Your task to perform on an android device: Open wifi settings Image 0: 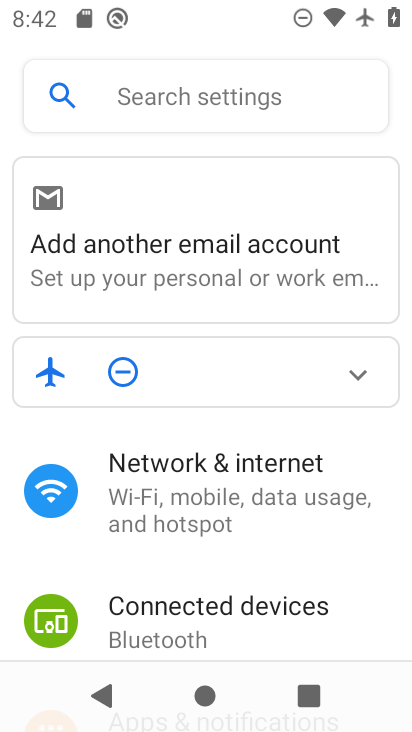
Step 0: press home button
Your task to perform on an android device: Open wifi settings Image 1: 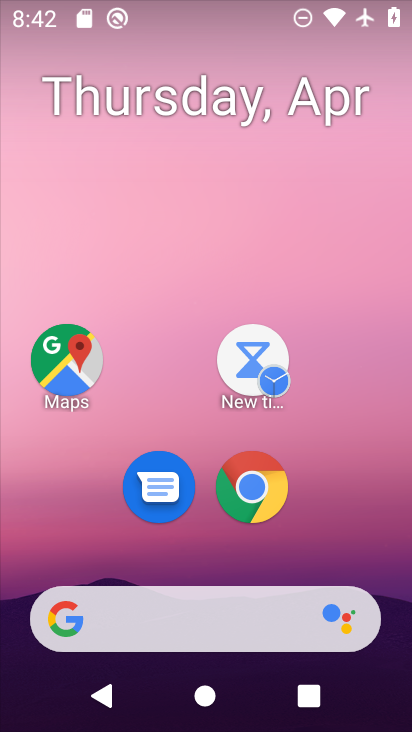
Step 1: drag from (330, 547) to (284, 108)
Your task to perform on an android device: Open wifi settings Image 2: 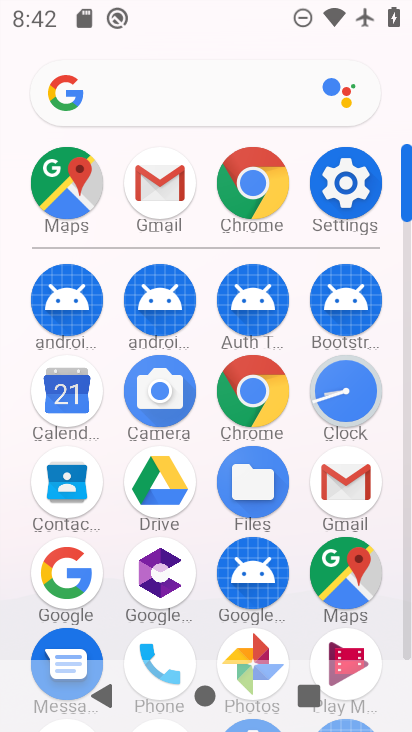
Step 2: click (340, 180)
Your task to perform on an android device: Open wifi settings Image 3: 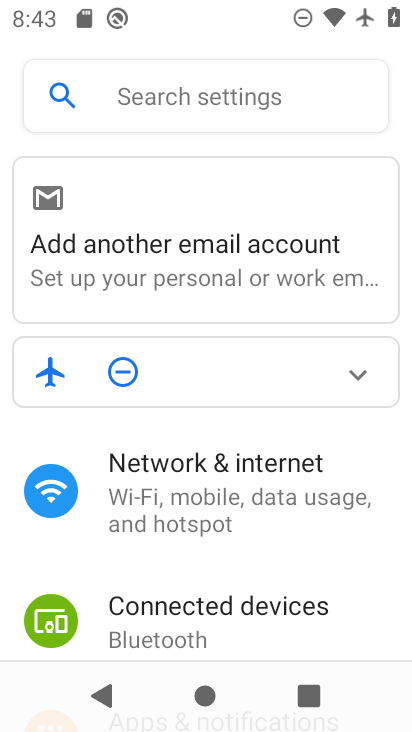
Step 3: click (166, 523)
Your task to perform on an android device: Open wifi settings Image 4: 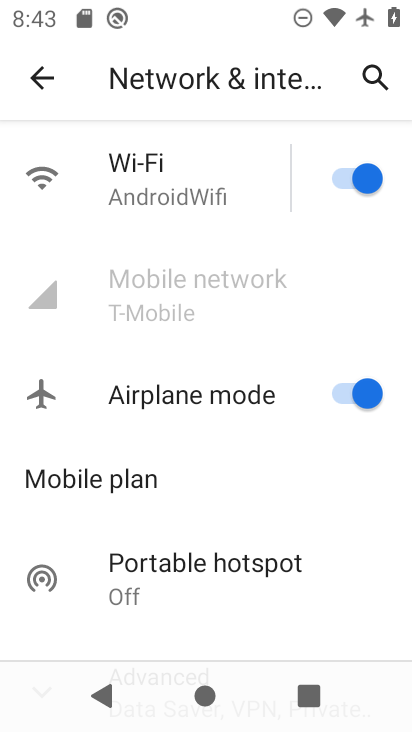
Step 4: click (119, 176)
Your task to perform on an android device: Open wifi settings Image 5: 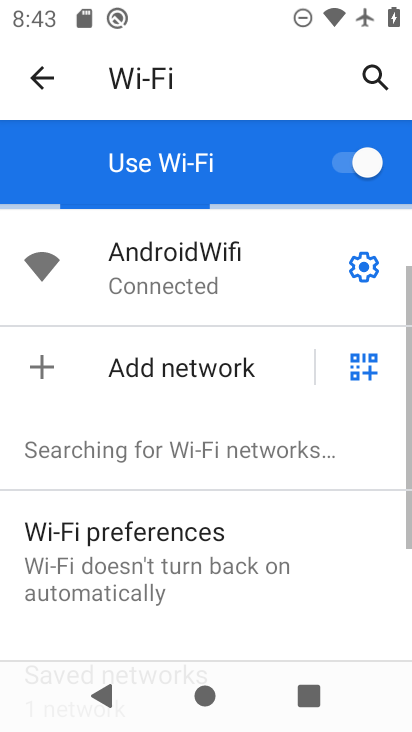
Step 5: task complete